Your task to perform on an android device: turn off data saver in the chrome app Image 0: 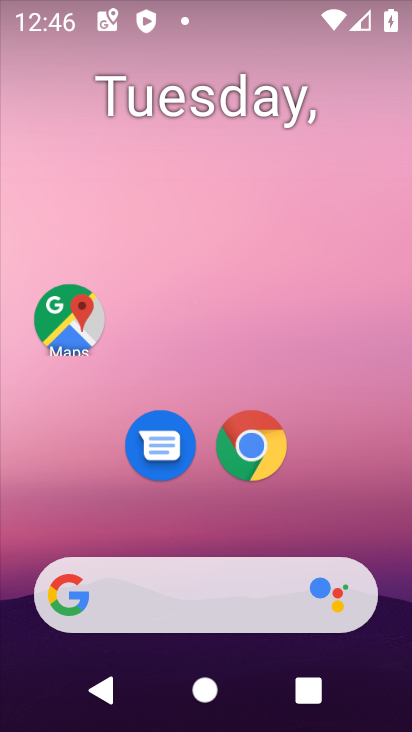
Step 0: drag from (368, 499) to (407, 56)
Your task to perform on an android device: turn off data saver in the chrome app Image 1: 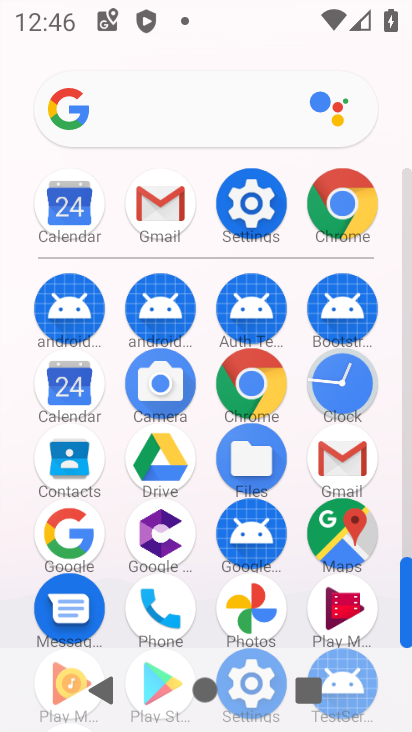
Step 1: click (334, 195)
Your task to perform on an android device: turn off data saver in the chrome app Image 2: 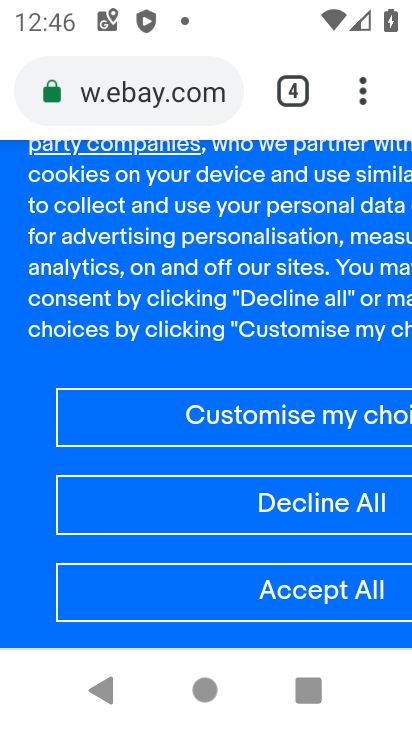
Step 2: drag from (369, 75) to (99, 470)
Your task to perform on an android device: turn off data saver in the chrome app Image 3: 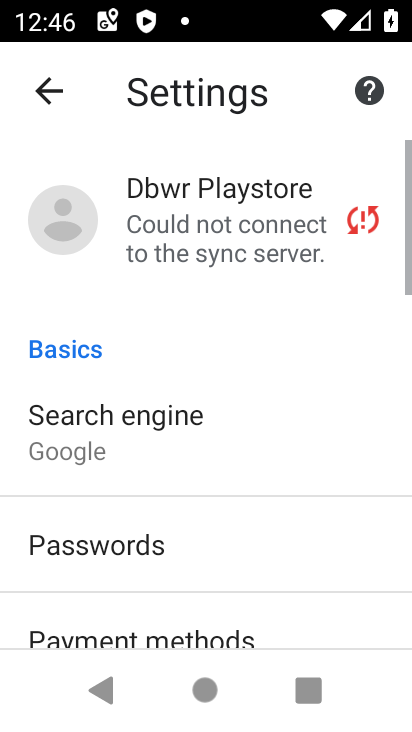
Step 3: drag from (165, 590) to (202, 179)
Your task to perform on an android device: turn off data saver in the chrome app Image 4: 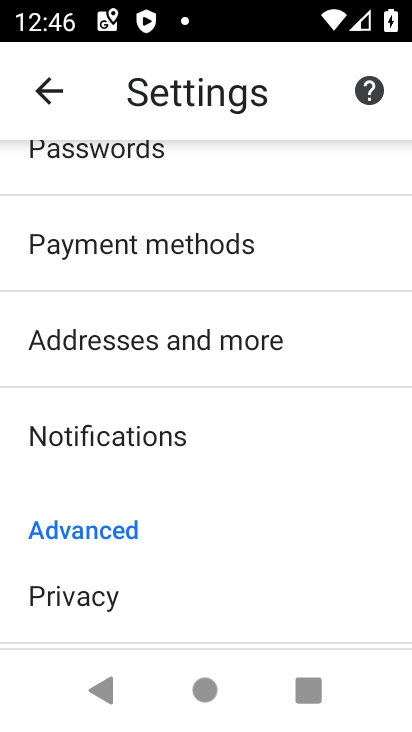
Step 4: drag from (239, 560) to (291, 148)
Your task to perform on an android device: turn off data saver in the chrome app Image 5: 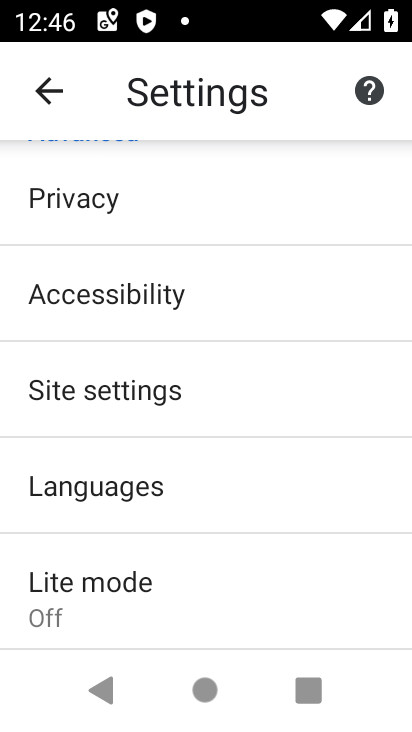
Step 5: drag from (141, 613) to (163, 255)
Your task to perform on an android device: turn off data saver in the chrome app Image 6: 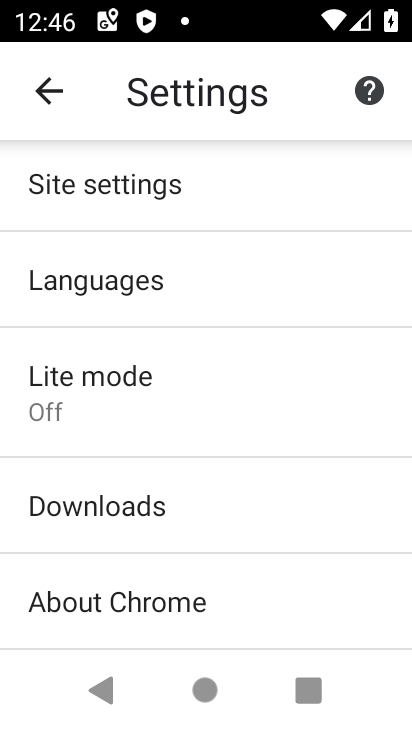
Step 6: drag from (203, 583) to (244, 124)
Your task to perform on an android device: turn off data saver in the chrome app Image 7: 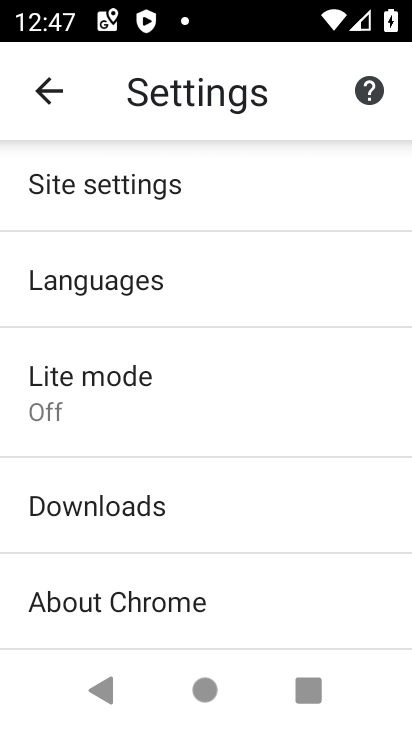
Step 7: drag from (201, 243) to (192, 634)
Your task to perform on an android device: turn off data saver in the chrome app Image 8: 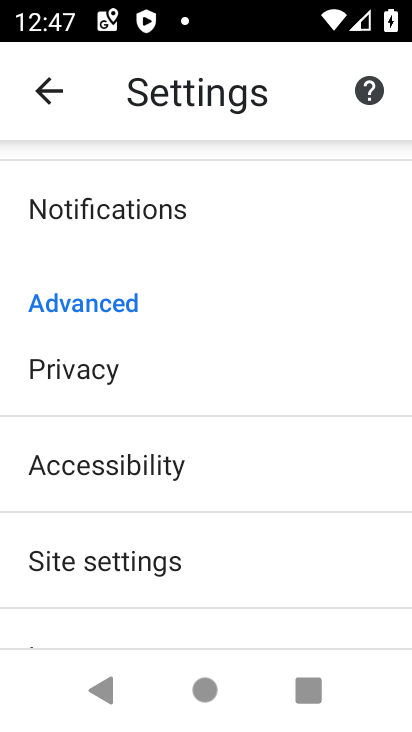
Step 8: drag from (169, 584) to (259, 167)
Your task to perform on an android device: turn off data saver in the chrome app Image 9: 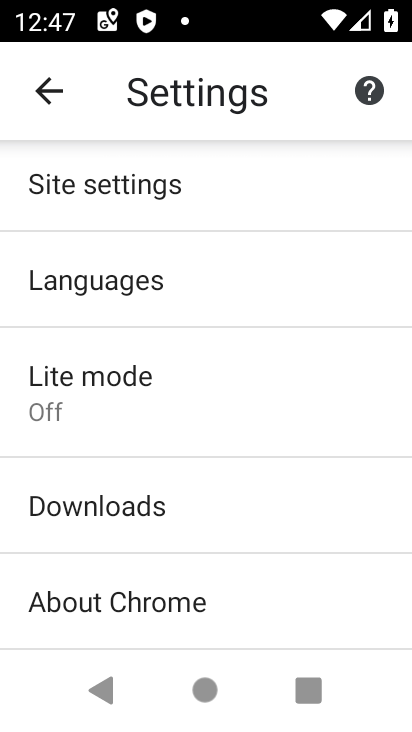
Step 9: click (117, 382)
Your task to perform on an android device: turn off data saver in the chrome app Image 10: 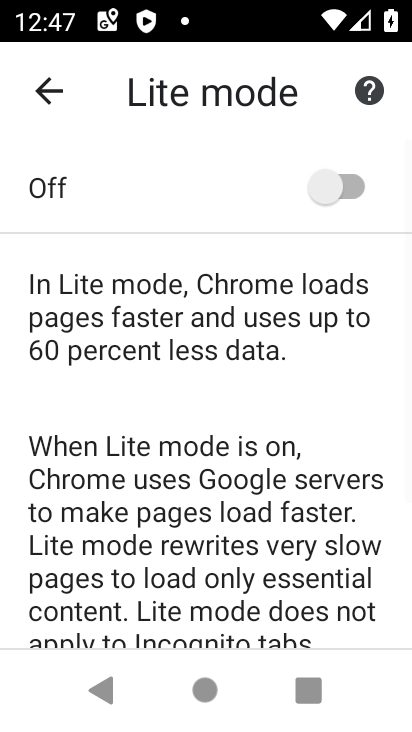
Step 10: task complete